Your task to perform on an android device: add a contact Image 0: 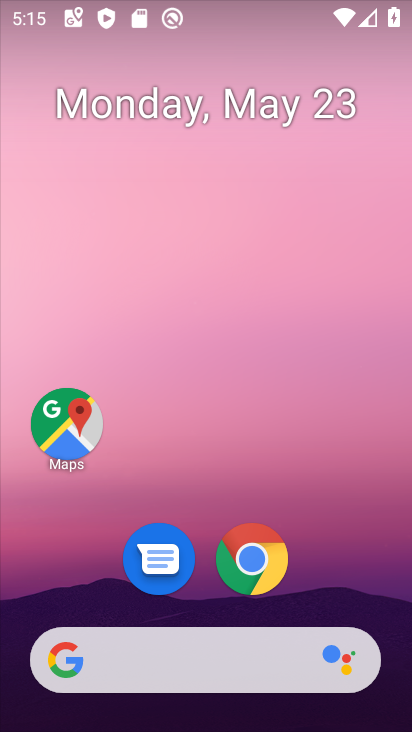
Step 0: drag from (316, 513) to (309, 19)
Your task to perform on an android device: add a contact Image 1: 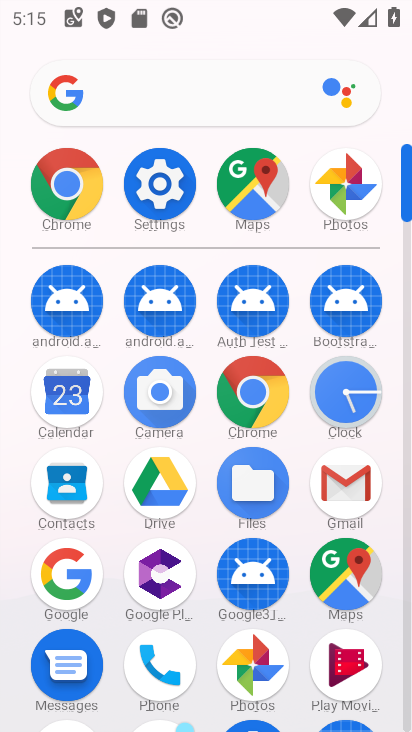
Step 1: click (77, 493)
Your task to perform on an android device: add a contact Image 2: 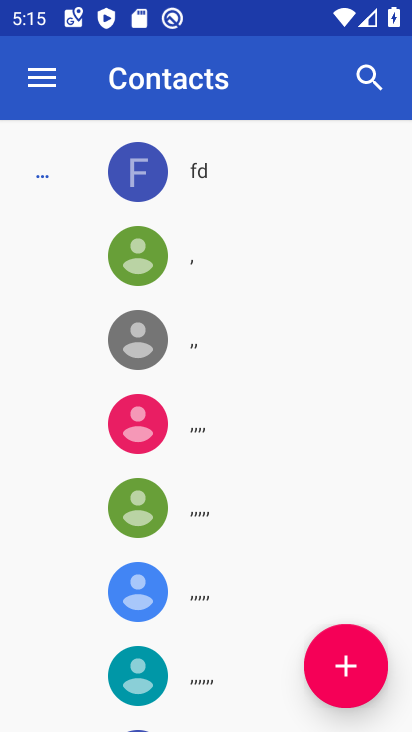
Step 2: click (346, 677)
Your task to perform on an android device: add a contact Image 3: 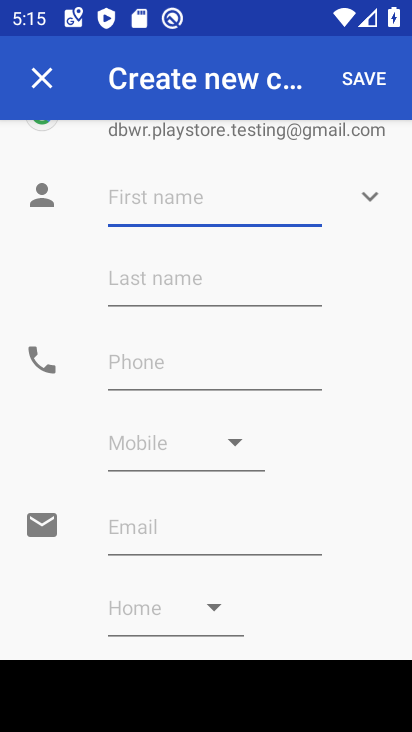
Step 3: type "jgjgkjjmm"
Your task to perform on an android device: add a contact Image 4: 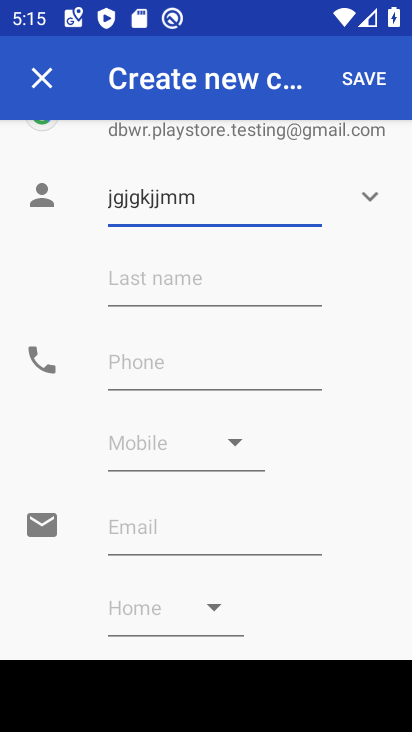
Step 4: click (226, 370)
Your task to perform on an android device: add a contact Image 5: 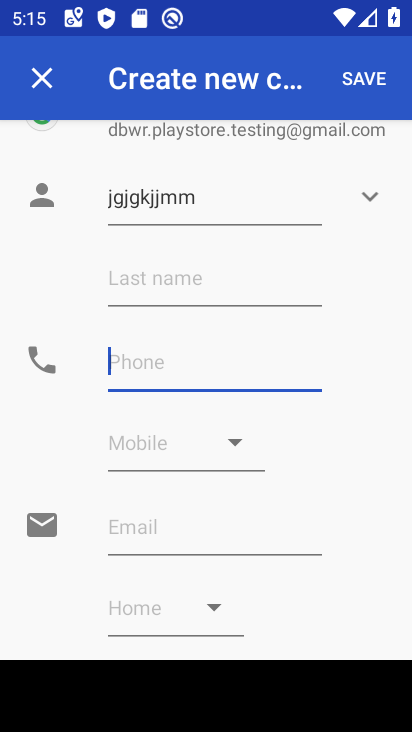
Step 5: type "9897676566"
Your task to perform on an android device: add a contact Image 6: 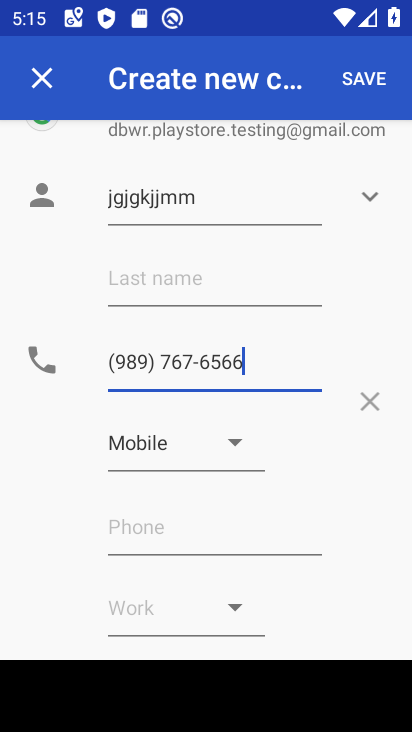
Step 6: click (370, 74)
Your task to perform on an android device: add a contact Image 7: 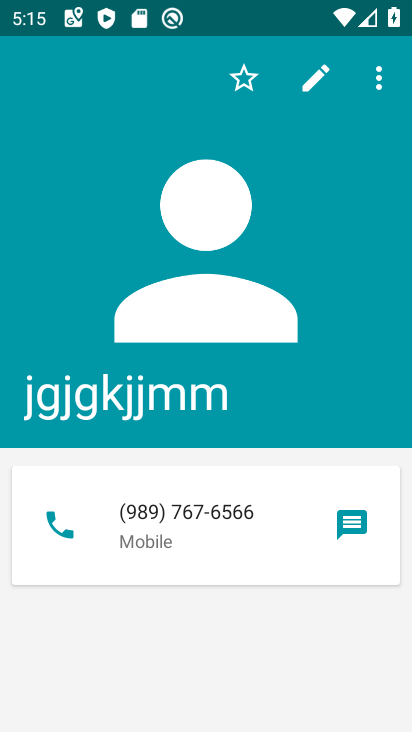
Step 7: task complete